Your task to perform on an android device: Open Google Chrome and click the shortcut for Amazon.com Image 0: 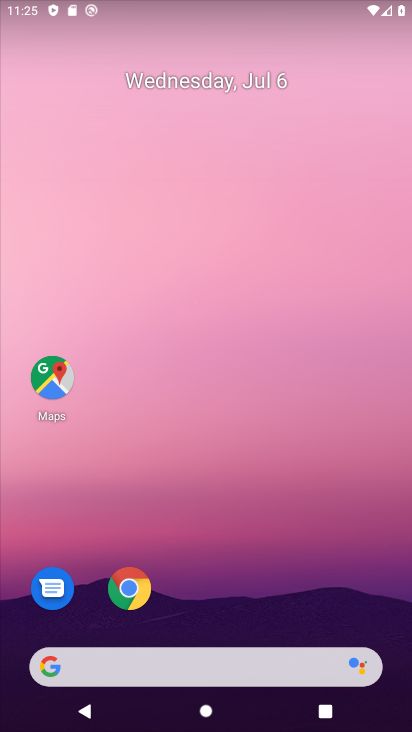
Step 0: drag from (223, 622) to (225, 167)
Your task to perform on an android device: Open Google Chrome and click the shortcut for Amazon.com Image 1: 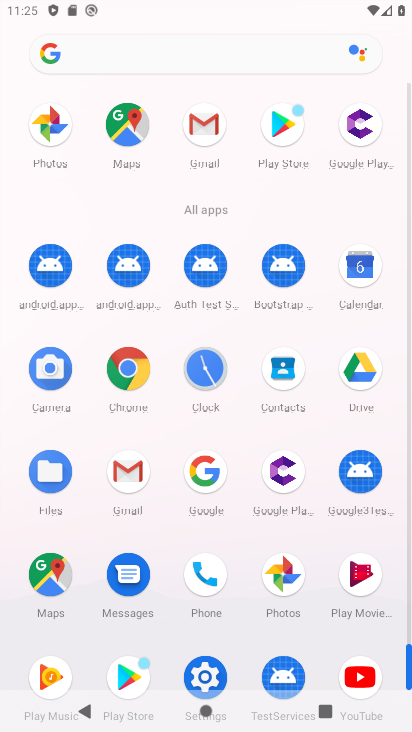
Step 1: click (139, 386)
Your task to perform on an android device: Open Google Chrome and click the shortcut for Amazon.com Image 2: 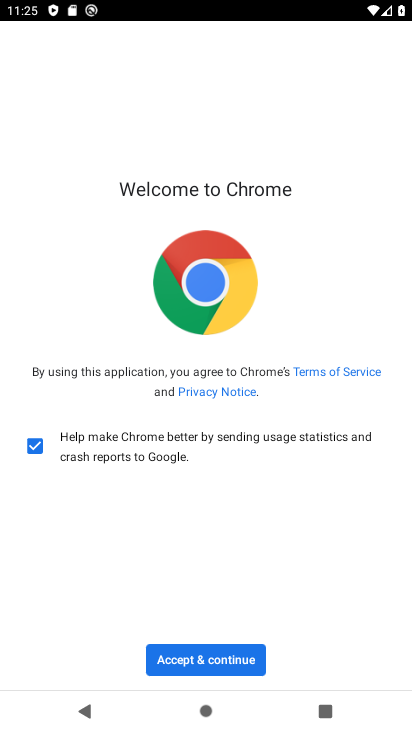
Step 2: click (215, 662)
Your task to perform on an android device: Open Google Chrome and click the shortcut for Amazon.com Image 3: 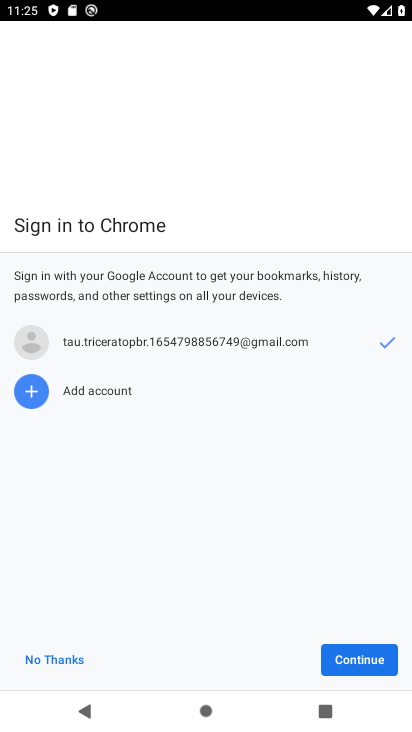
Step 3: click (382, 661)
Your task to perform on an android device: Open Google Chrome and click the shortcut for Amazon.com Image 4: 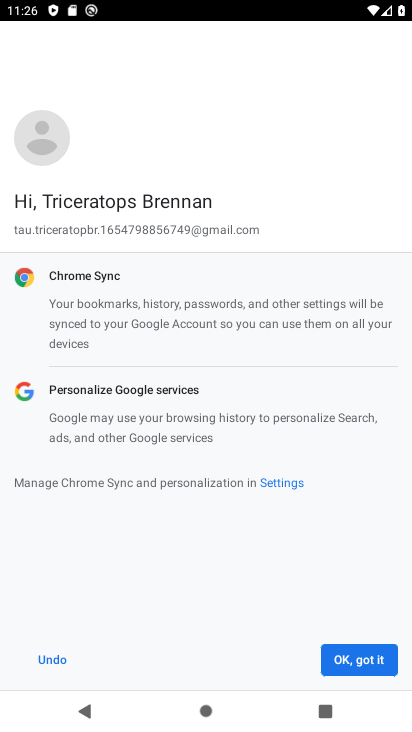
Step 4: click (337, 660)
Your task to perform on an android device: Open Google Chrome and click the shortcut for Amazon.com Image 5: 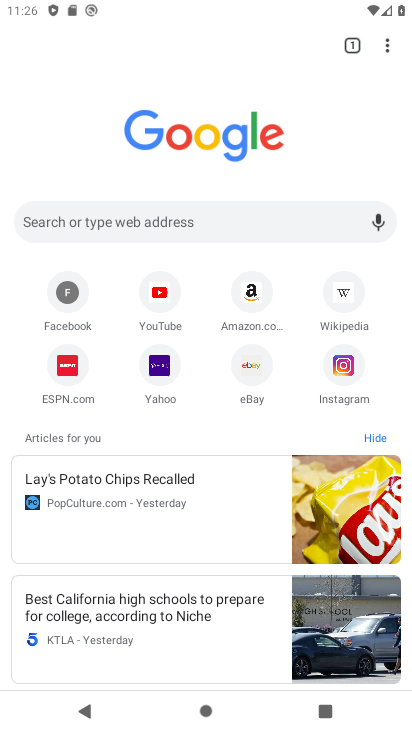
Step 5: click (245, 302)
Your task to perform on an android device: Open Google Chrome and click the shortcut for Amazon.com Image 6: 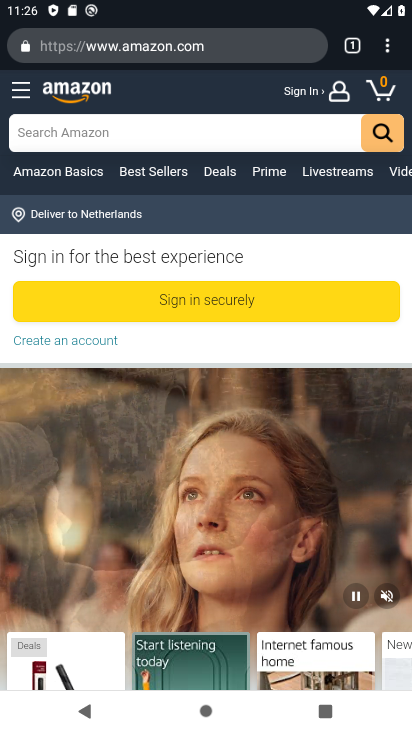
Step 6: task complete